Your task to perform on an android device: Open privacy settings Image 0: 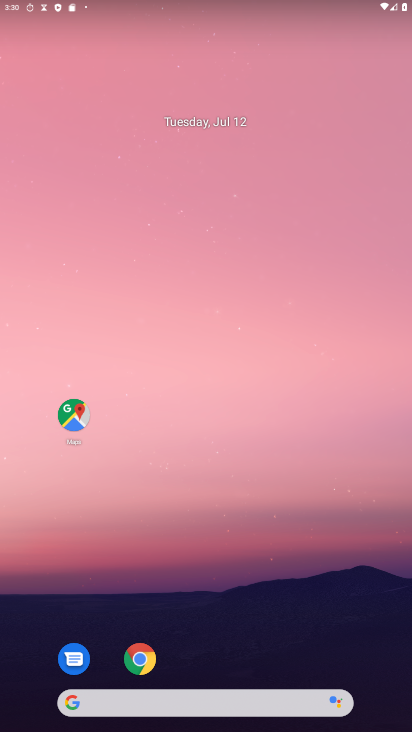
Step 0: drag from (270, 657) to (233, 290)
Your task to perform on an android device: Open privacy settings Image 1: 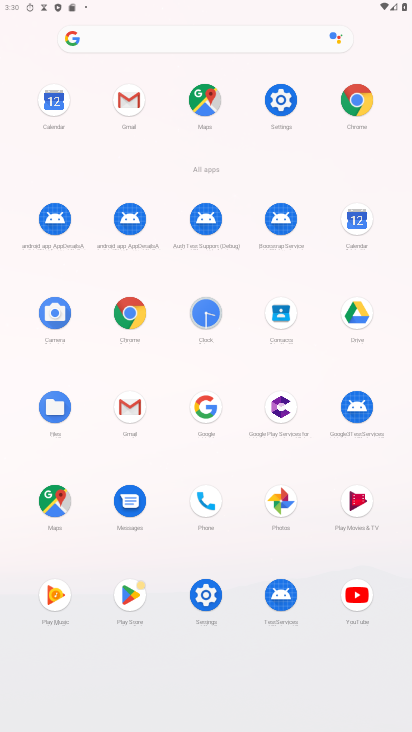
Step 1: click (278, 89)
Your task to perform on an android device: Open privacy settings Image 2: 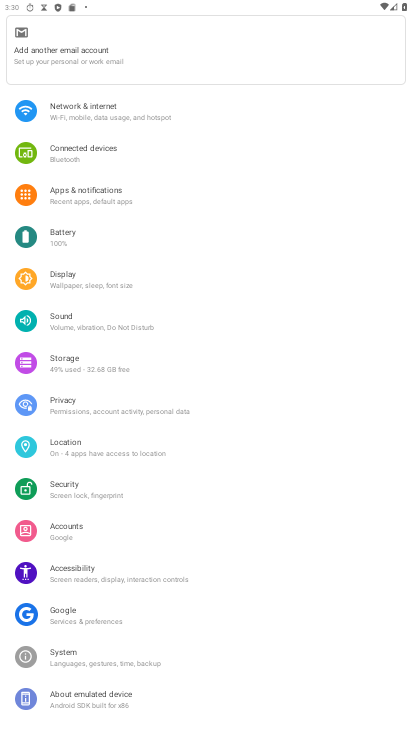
Step 2: click (116, 402)
Your task to perform on an android device: Open privacy settings Image 3: 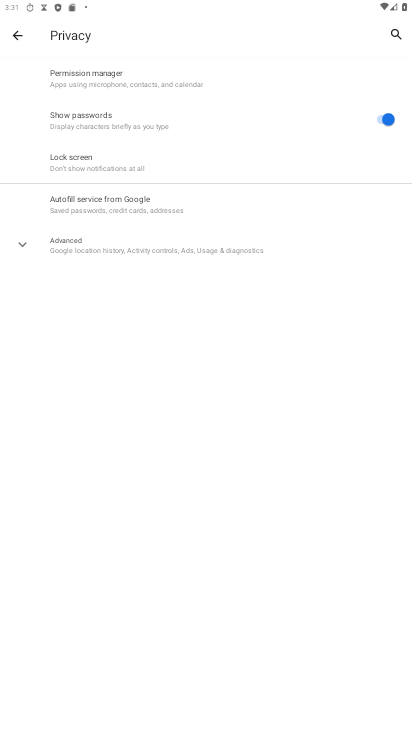
Step 3: task complete